Your task to perform on an android device: toggle javascript in the chrome app Image 0: 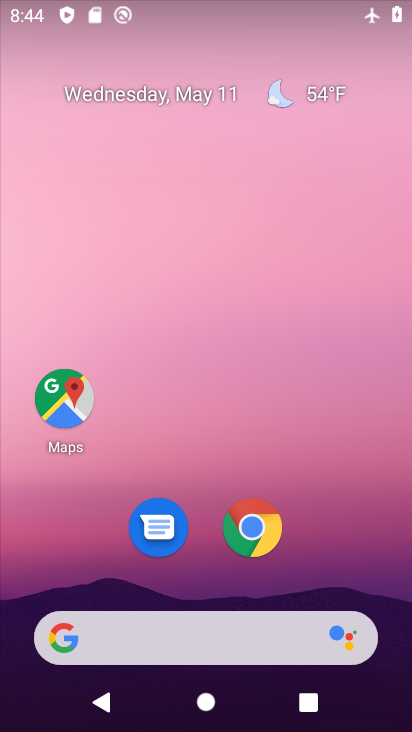
Step 0: click (270, 515)
Your task to perform on an android device: toggle javascript in the chrome app Image 1: 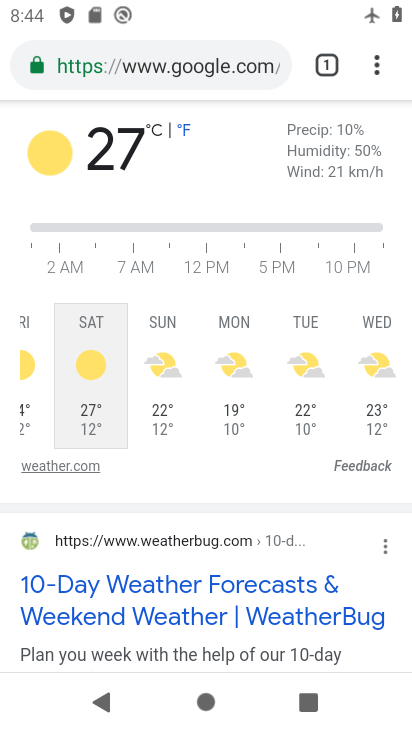
Step 1: drag from (375, 72) to (183, 569)
Your task to perform on an android device: toggle javascript in the chrome app Image 2: 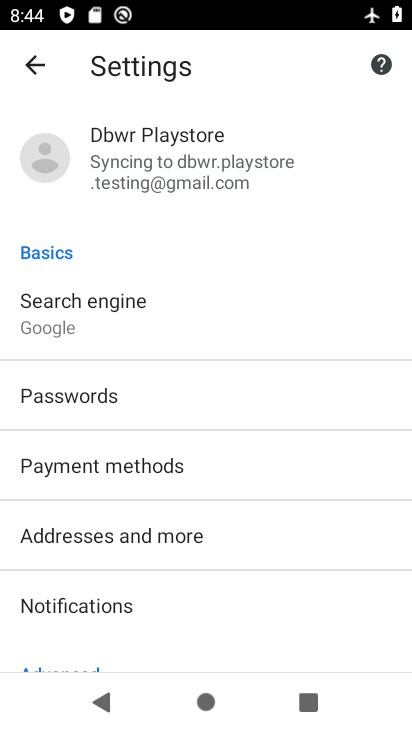
Step 2: drag from (221, 607) to (201, 242)
Your task to perform on an android device: toggle javascript in the chrome app Image 3: 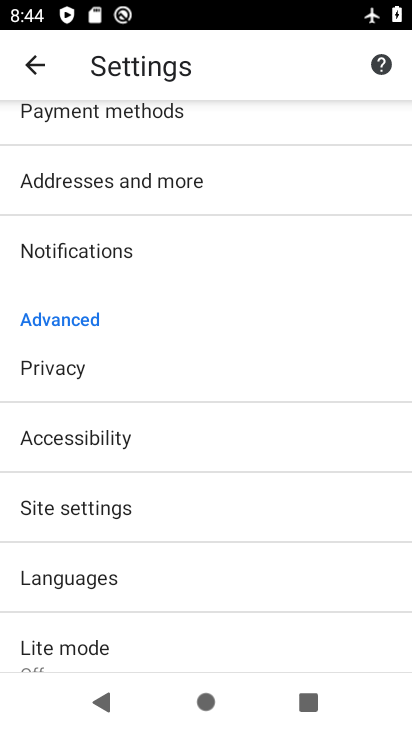
Step 3: click (144, 516)
Your task to perform on an android device: toggle javascript in the chrome app Image 4: 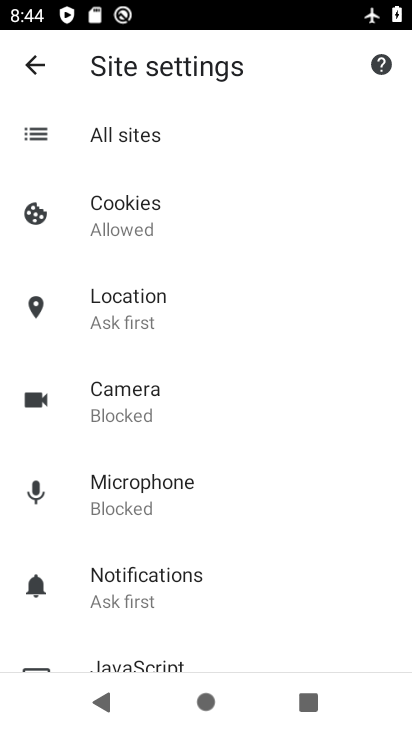
Step 4: drag from (230, 641) to (209, 466)
Your task to perform on an android device: toggle javascript in the chrome app Image 5: 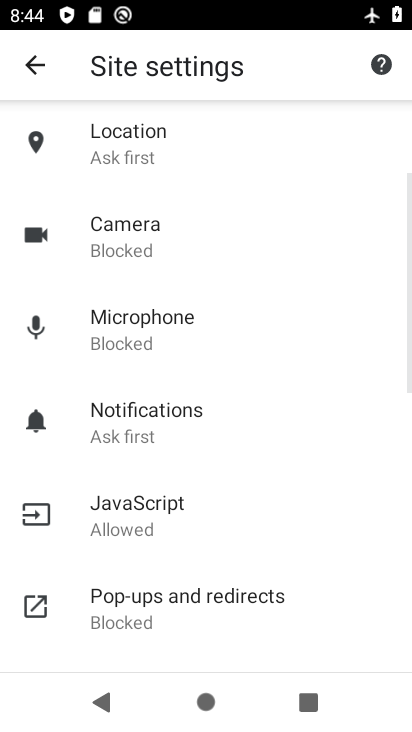
Step 5: click (163, 542)
Your task to perform on an android device: toggle javascript in the chrome app Image 6: 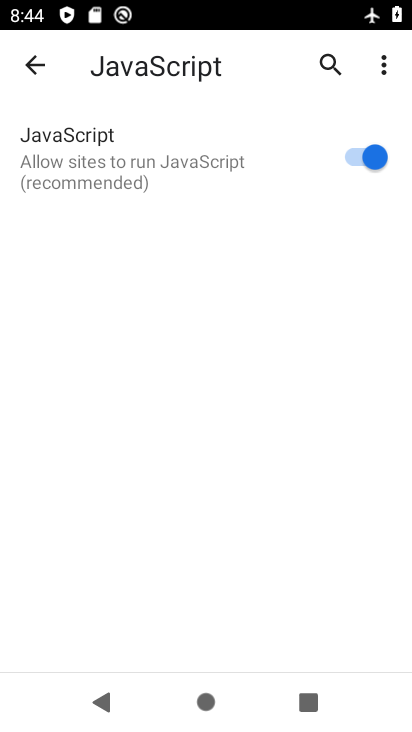
Step 6: click (372, 155)
Your task to perform on an android device: toggle javascript in the chrome app Image 7: 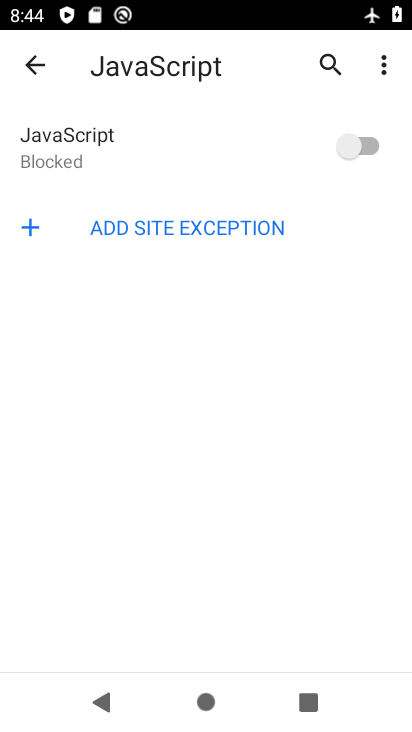
Step 7: task complete